Your task to perform on an android device: Is it going to rain this weekend? Image 0: 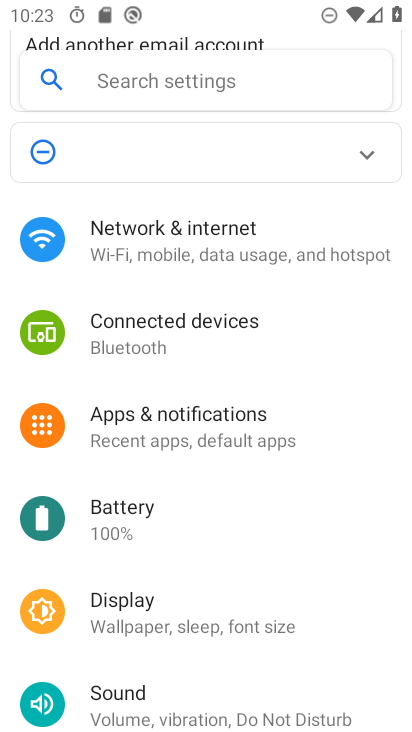
Step 0: press home button
Your task to perform on an android device: Is it going to rain this weekend? Image 1: 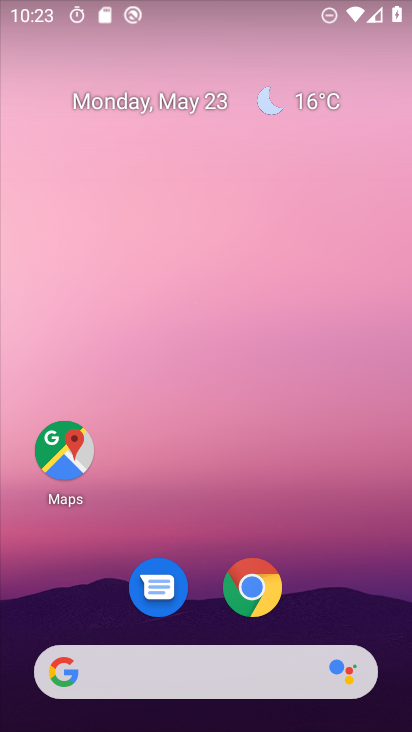
Step 1: drag from (119, 546) to (200, 92)
Your task to perform on an android device: Is it going to rain this weekend? Image 2: 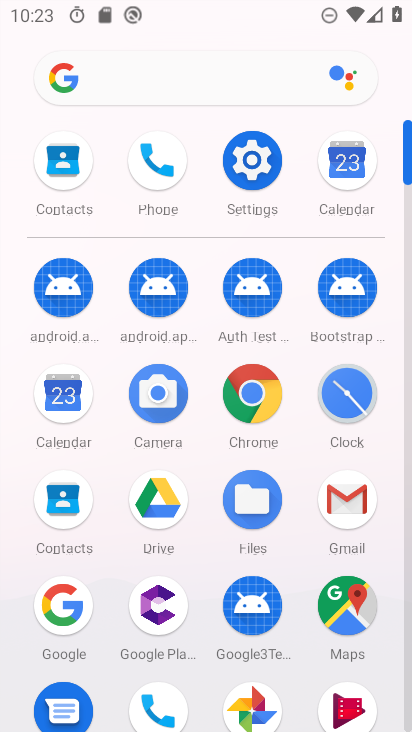
Step 2: press home button
Your task to perform on an android device: Is it going to rain this weekend? Image 3: 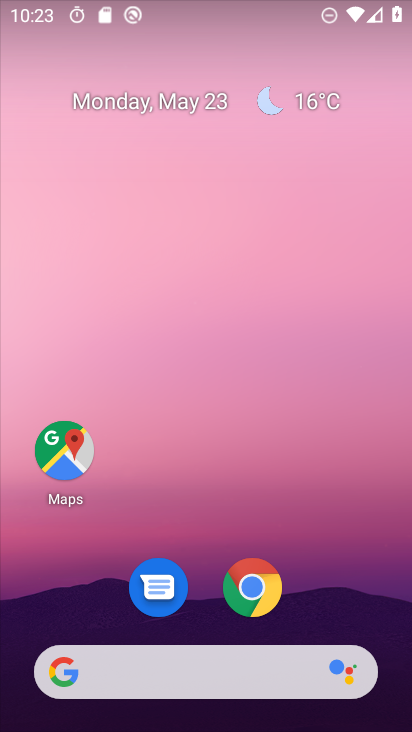
Step 3: click (262, 96)
Your task to perform on an android device: Is it going to rain this weekend? Image 4: 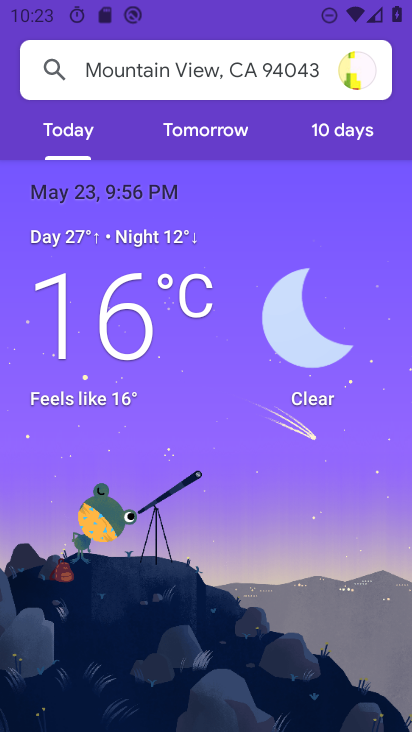
Step 4: click (320, 121)
Your task to perform on an android device: Is it going to rain this weekend? Image 5: 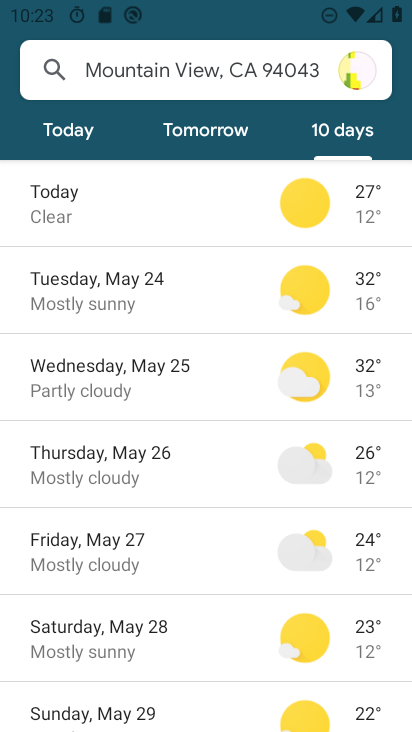
Step 5: task complete